Your task to perform on an android device: Open notification settings Image 0: 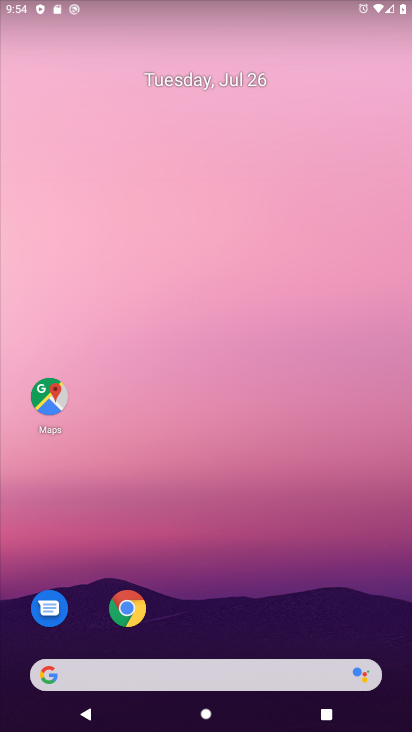
Step 0: drag from (224, 728) to (224, 144)
Your task to perform on an android device: Open notification settings Image 1: 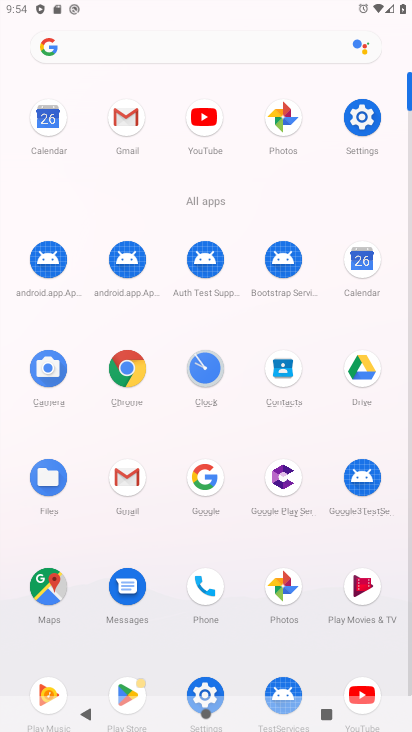
Step 1: click (361, 119)
Your task to perform on an android device: Open notification settings Image 2: 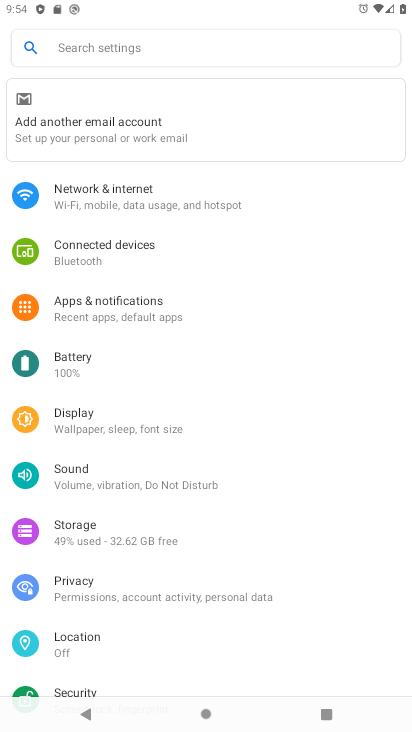
Step 2: click (106, 303)
Your task to perform on an android device: Open notification settings Image 3: 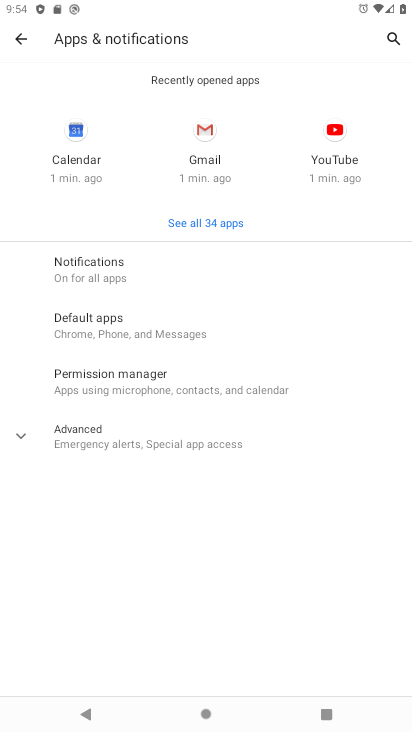
Step 3: click (87, 264)
Your task to perform on an android device: Open notification settings Image 4: 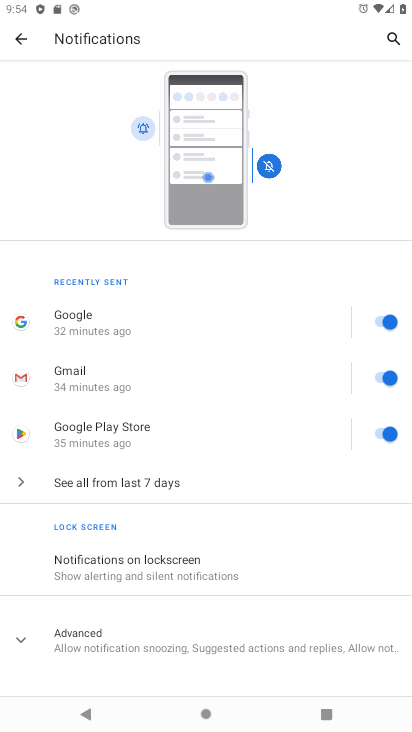
Step 4: task complete